Your task to perform on an android device: Clear all items from cart on ebay. Search for bose soundlink on ebay, select the first entry, add it to the cart, then select checkout. Image 0: 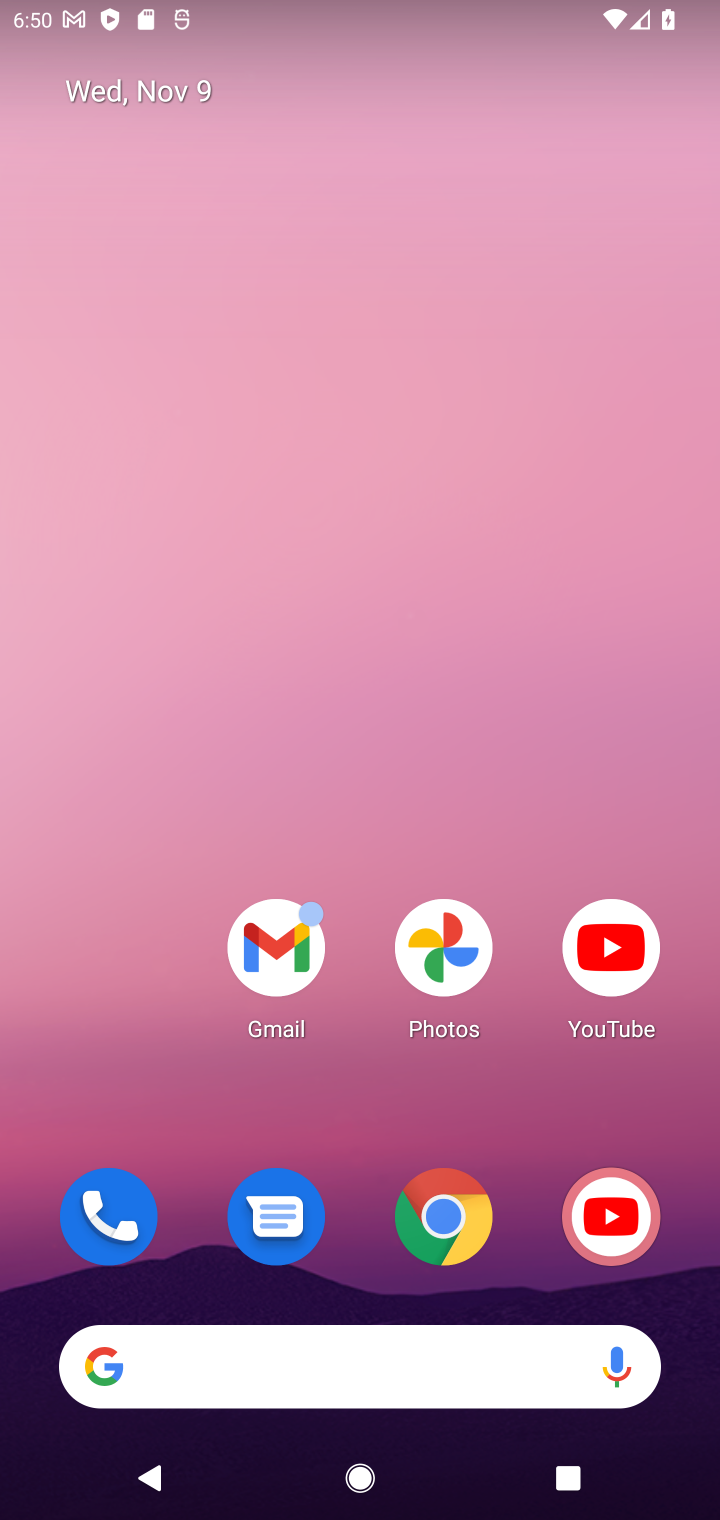
Step 0: drag from (380, 1132) to (413, 166)
Your task to perform on an android device: Clear all items from cart on ebay. Search for bose soundlink on ebay, select the first entry, add it to the cart, then select checkout. Image 1: 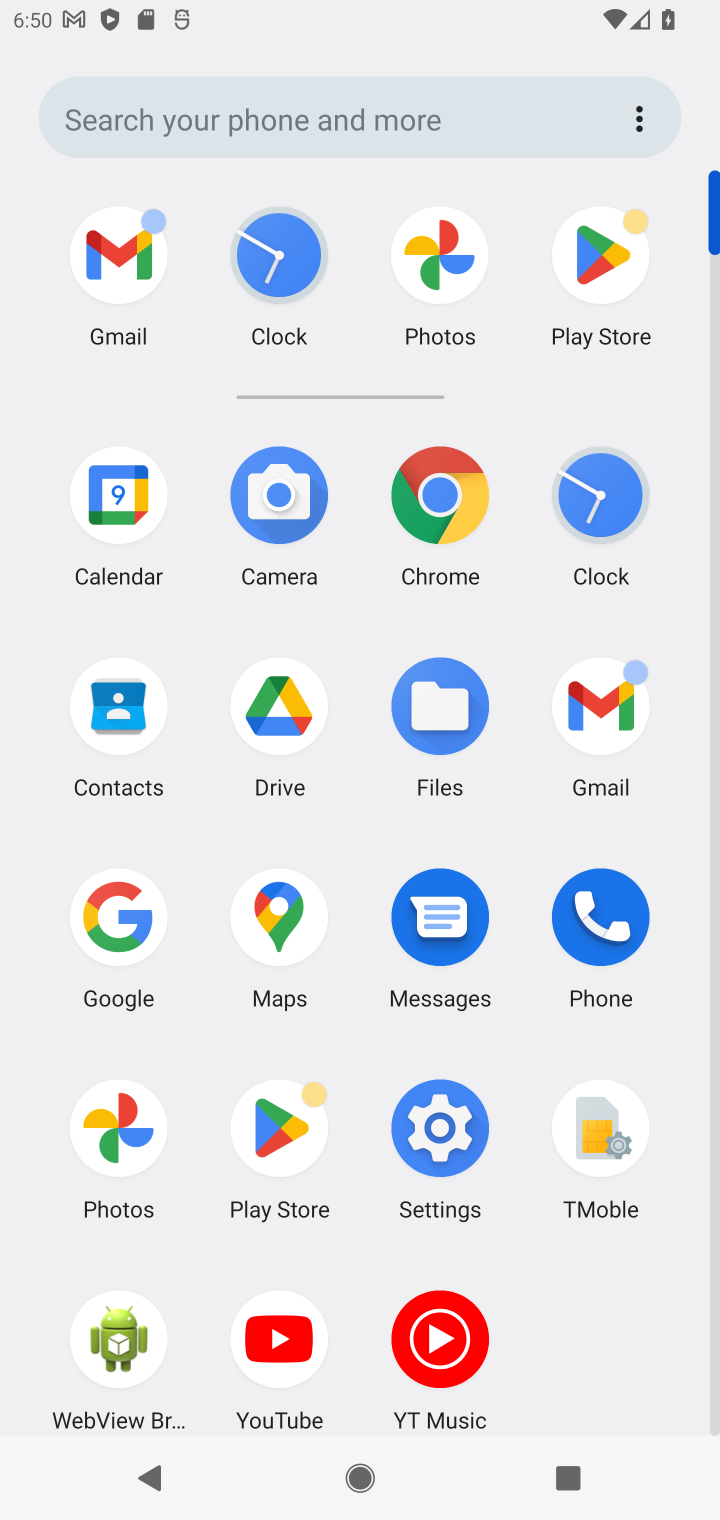
Step 1: click (434, 494)
Your task to perform on an android device: Clear all items from cart on ebay. Search for bose soundlink on ebay, select the first entry, add it to the cart, then select checkout. Image 2: 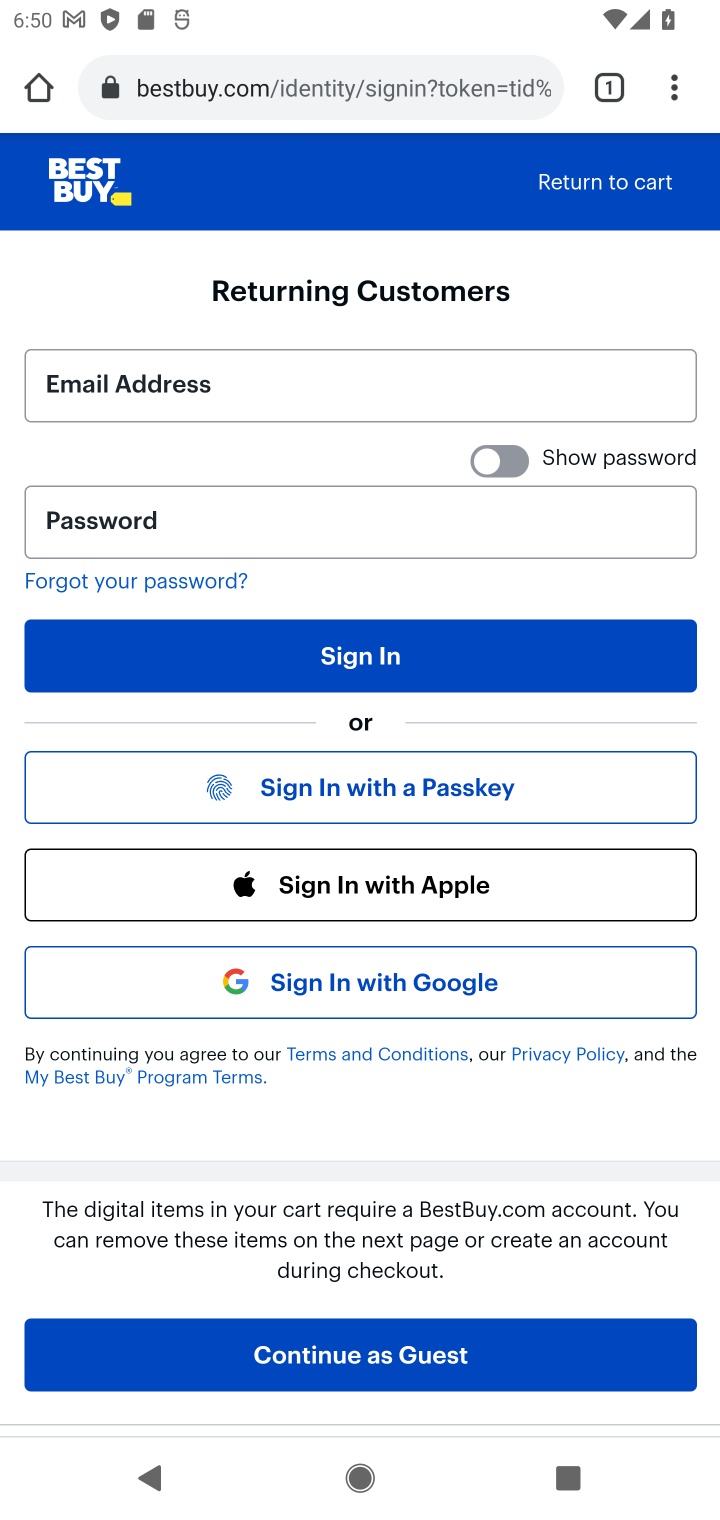
Step 2: click (378, 81)
Your task to perform on an android device: Clear all items from cart on ebay. Search for bose soundlink on ebay, select the first entry, add it to the cart, then select checkout. Image 3: 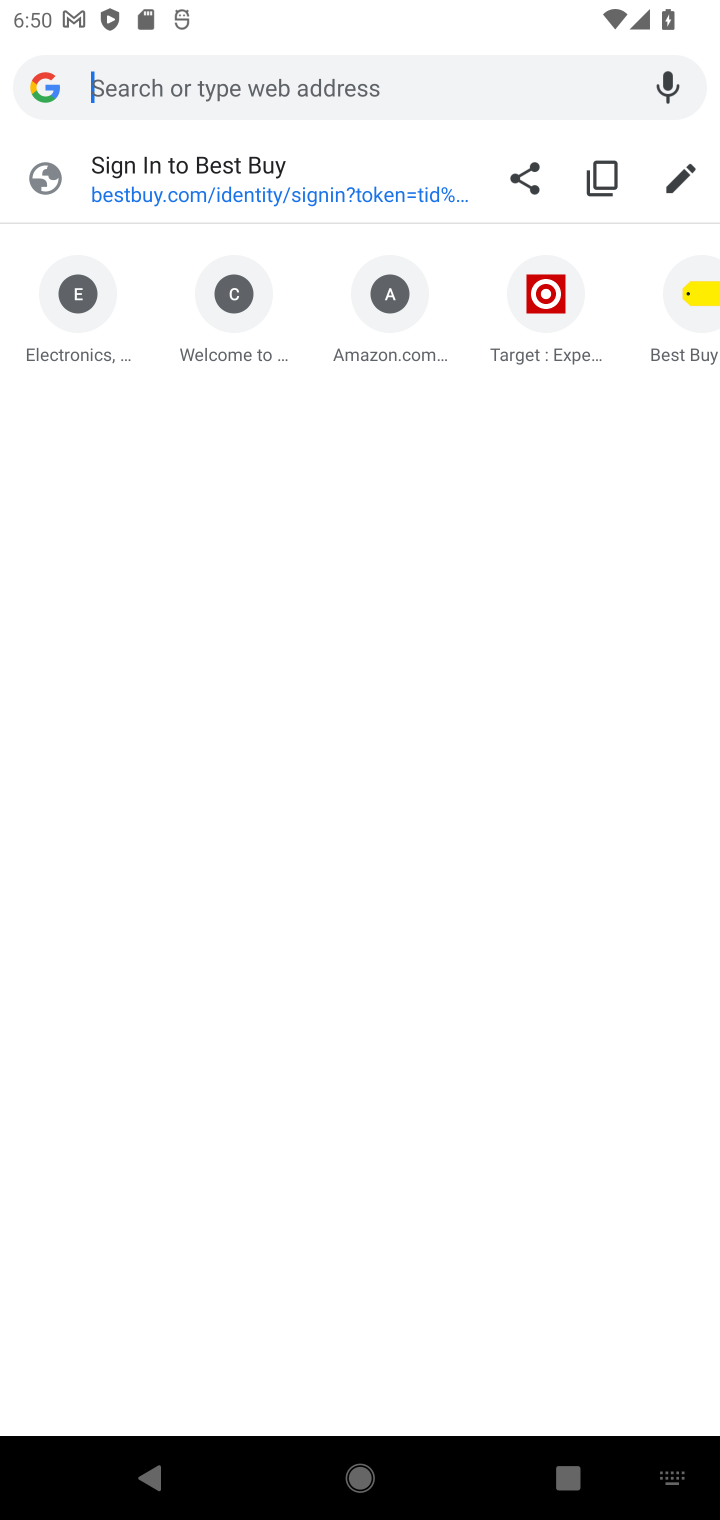
Step 3: press enter
Your task to perform on an android device: Clear all items from cart on ebay. Search for bose soundlink on ebay, select the first entry, add it to the cart, then select checkout. Image 4: 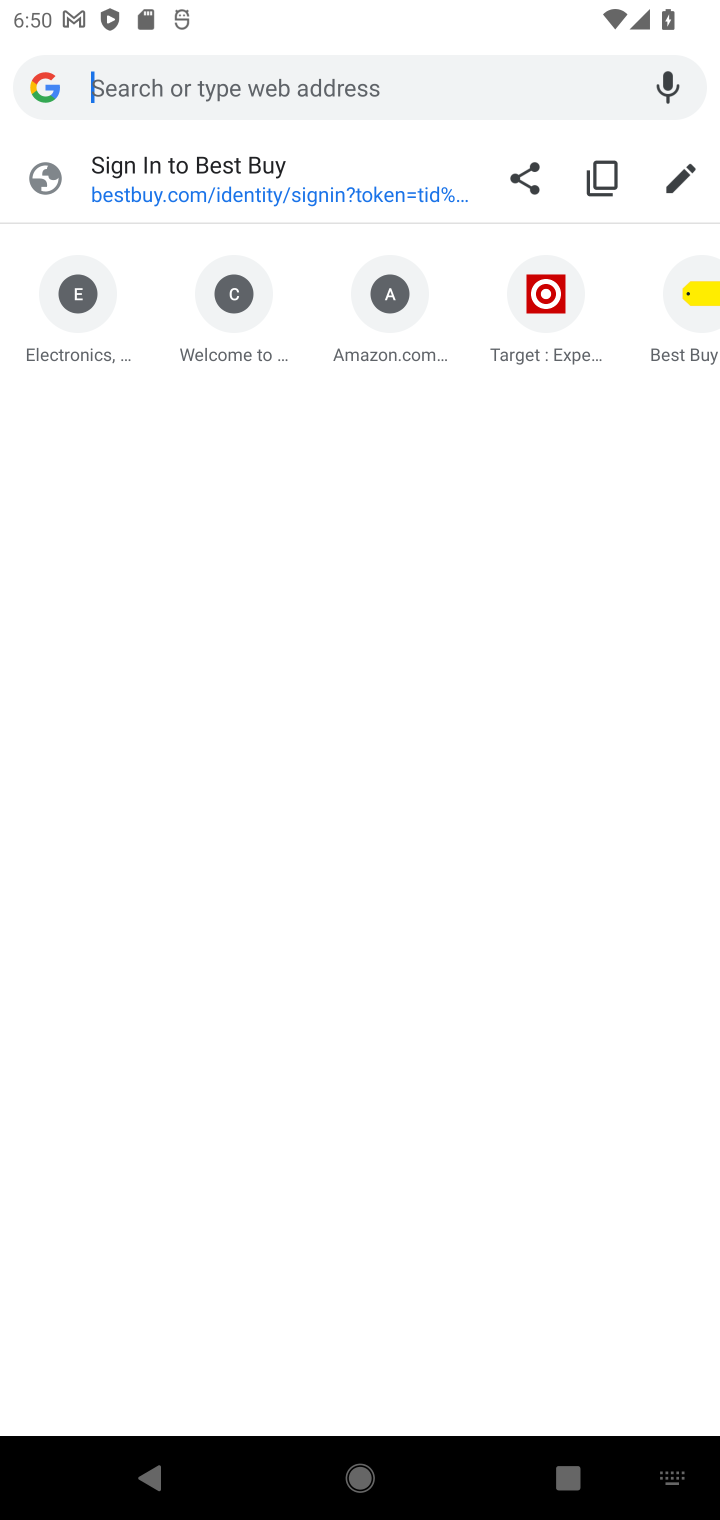
Step 4: type "ebay.com"
Your task to perform on an android device: Clear all items from cart on ebay. Search for bose soundlink on ebay, select the first entry, add it to the cart, then select checkout. Image 5: 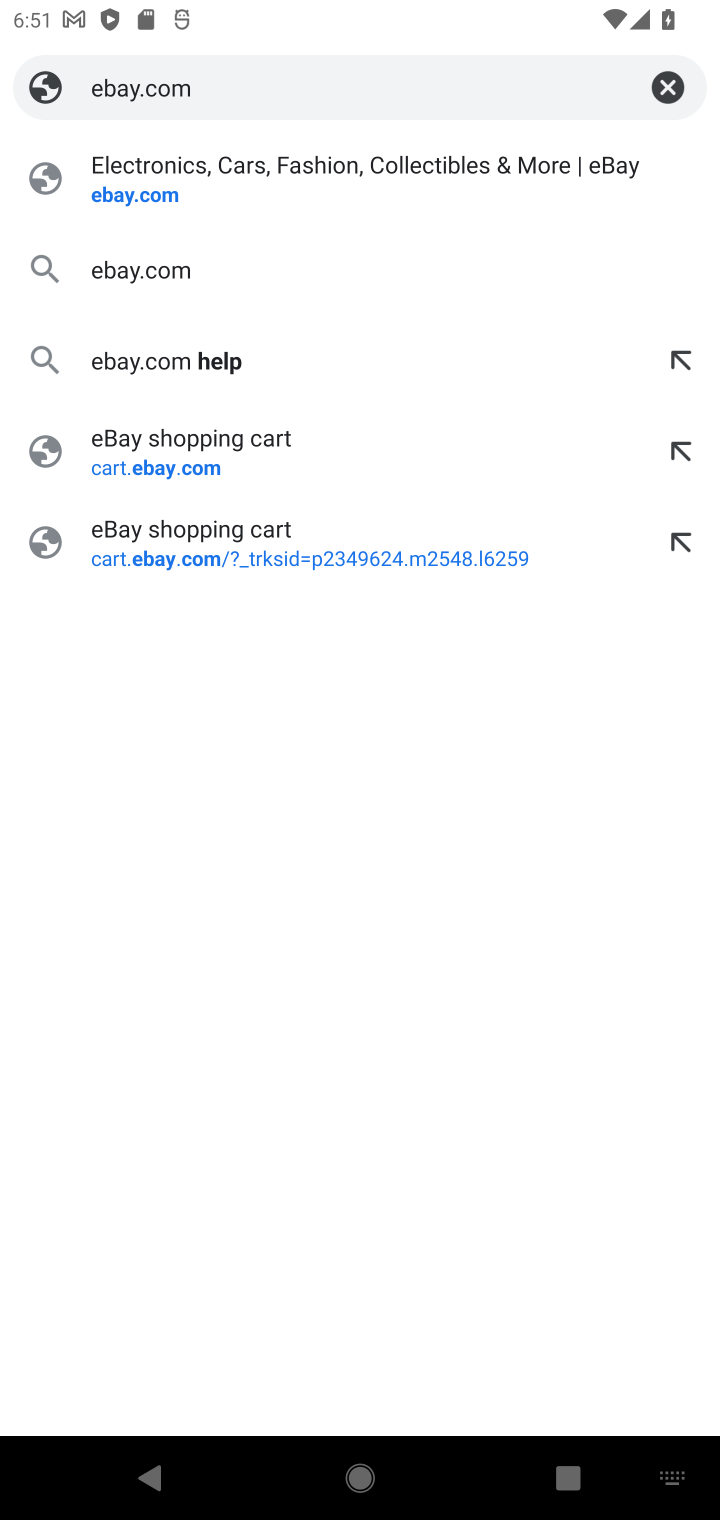
Step 5: press enter
Your task to perform on an android device: Clear all items from cart on ebay. Search for bose soundlink on ebay, select the first entry, add it to the cart, then select checkout. Image 6: 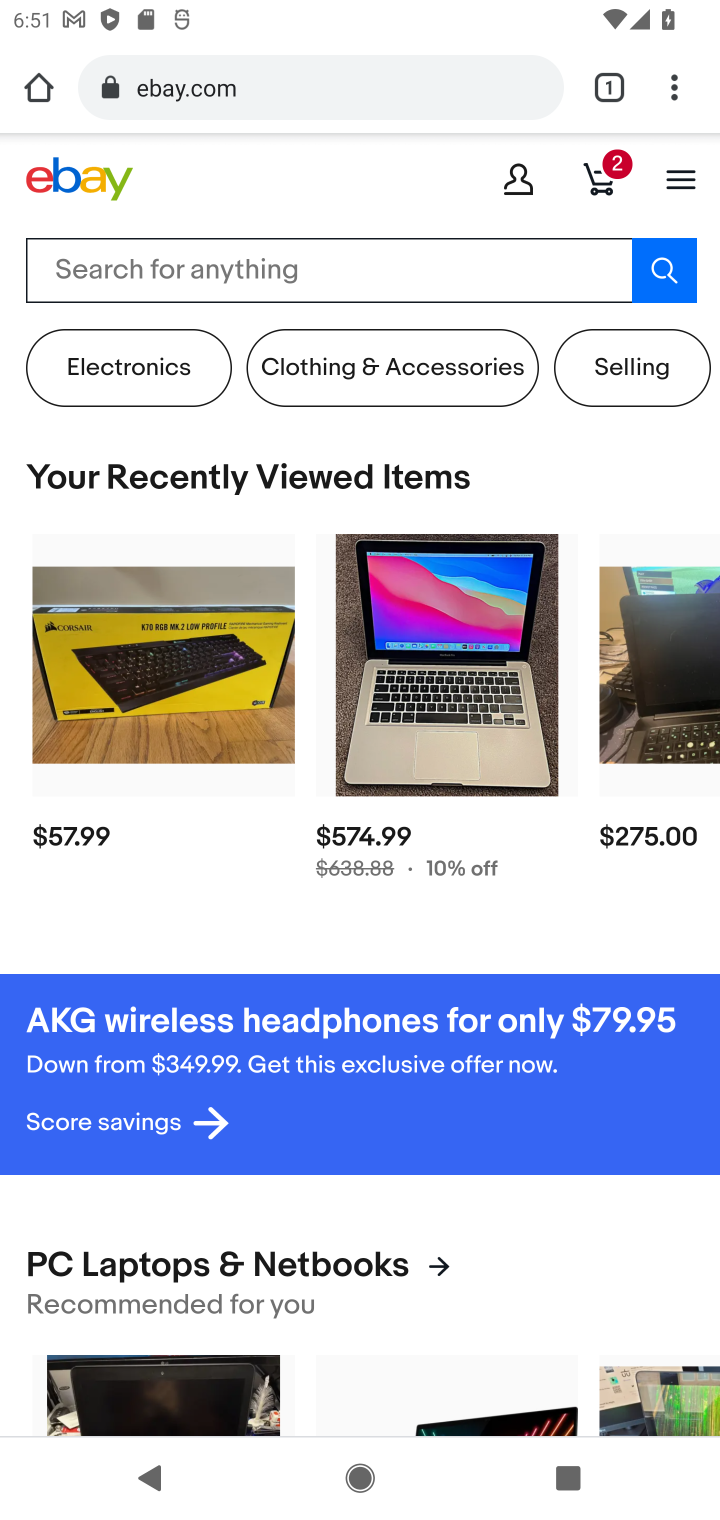
Step 6: click (607, 159)
Your task to perform on an android device: Clear all items from cart on ebay. Search for bose soundlink on ebay, select the first entry, add it to the cart, then select checkout. Image 7: 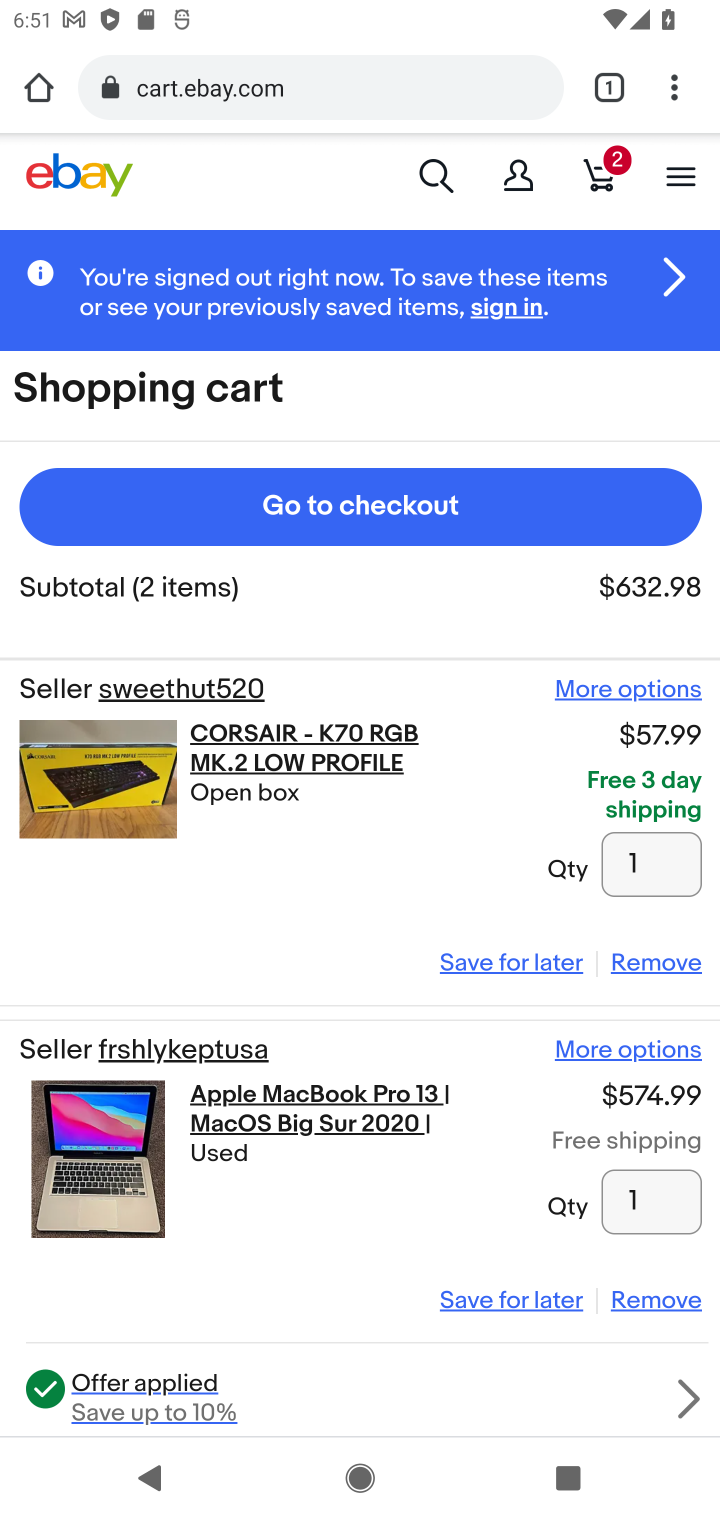
Step 7: click (675, 967)
Your task to perform on an android device: Clear all items from cart on ebay. Search for bose soundlink on ebay, select the first entry, add it to the cart, then select checkout. Image 8: 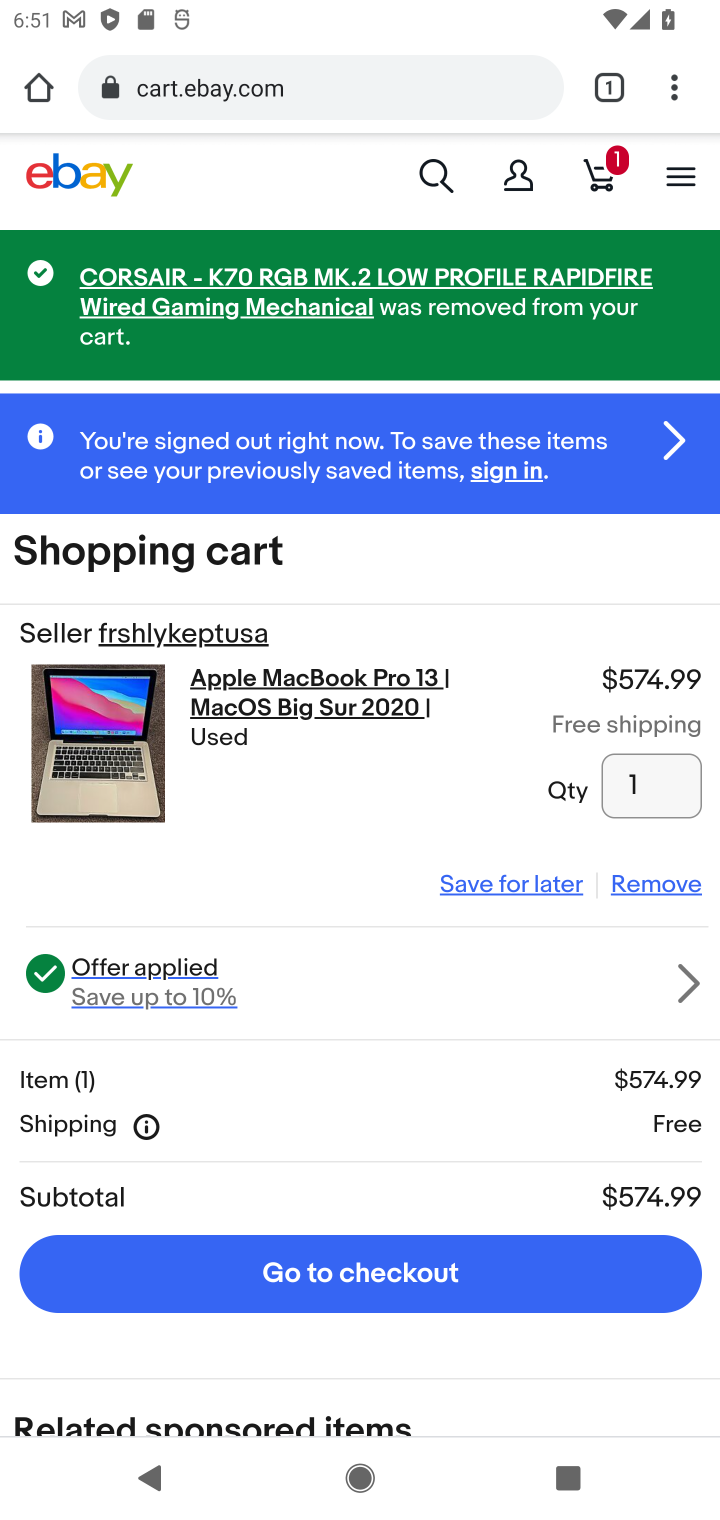
Step 8: click (653, 882)
Your task to perform on an android device: Clear all items from cart on ebay. Search for bose soundlink on ebay, select the first entry, add it to the cart, then select checkout. Image 9: 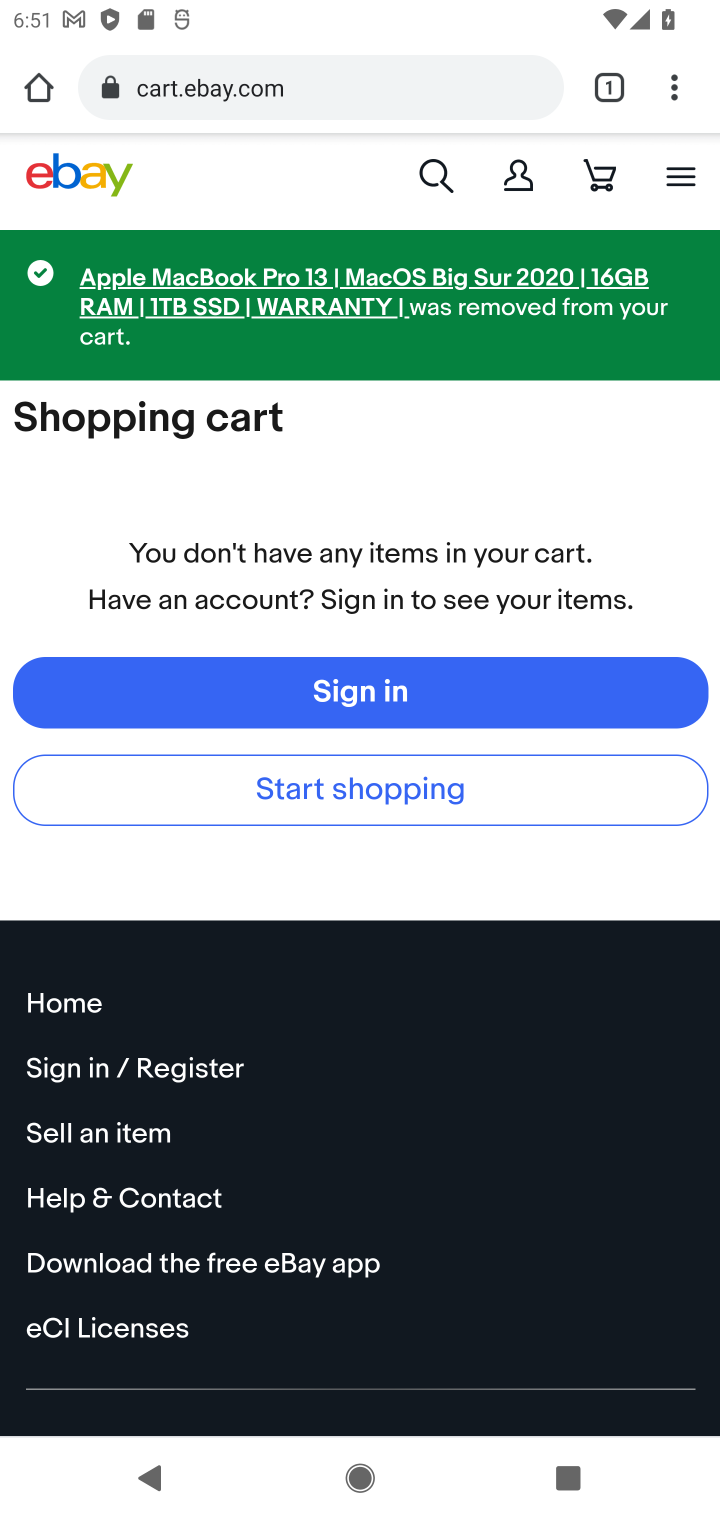
Step 9: click (467, 785)
Your task to perform on an android device: Clear all items from cart on ebay. Search for bose soundlink on ebay, select the first entry, add it to the cart, then select checkout. Image 10: 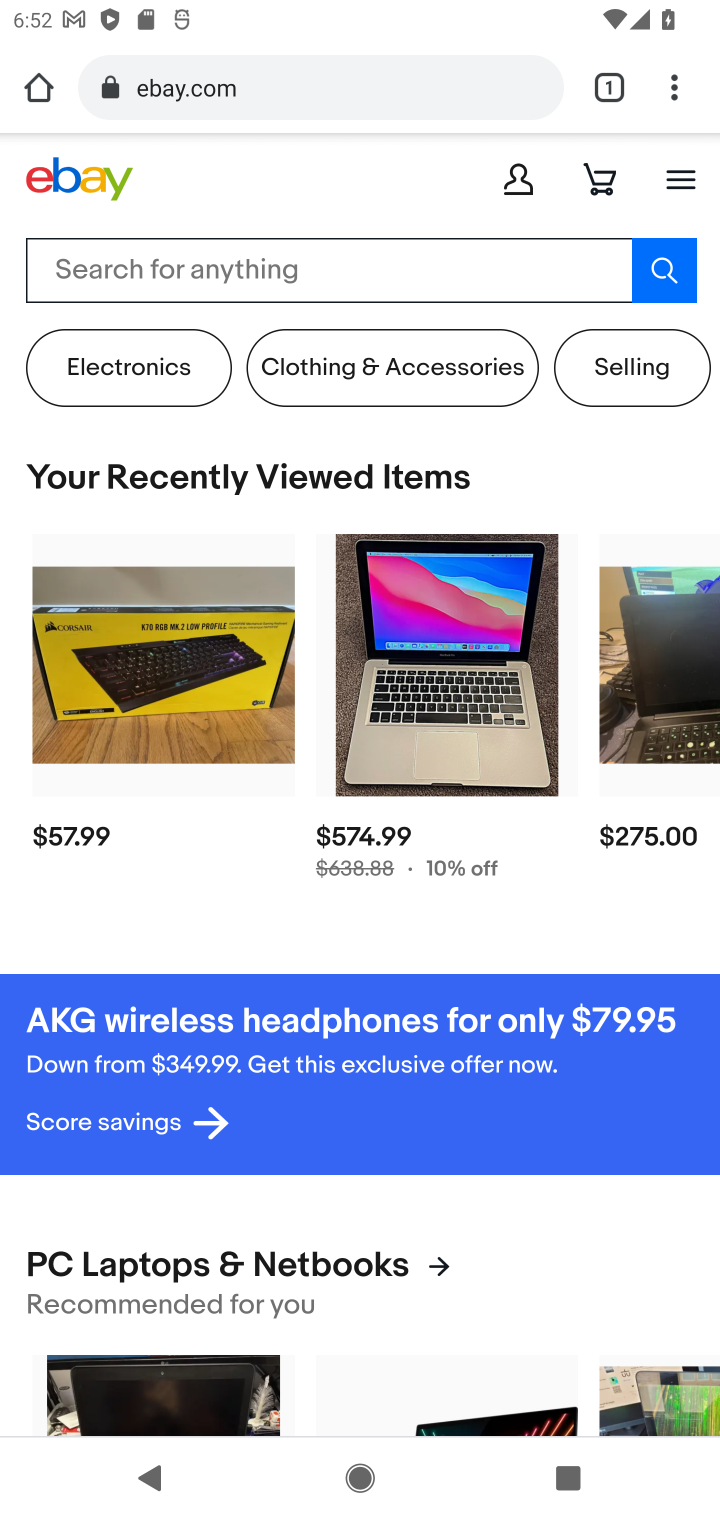
Step 10: click (600, 182)
Your task to perform on an android device: Clear all items from cart on ebay. Search for bose soundlink on ebay, select the first entry, add it to the cart, then select checkout. Image 11: 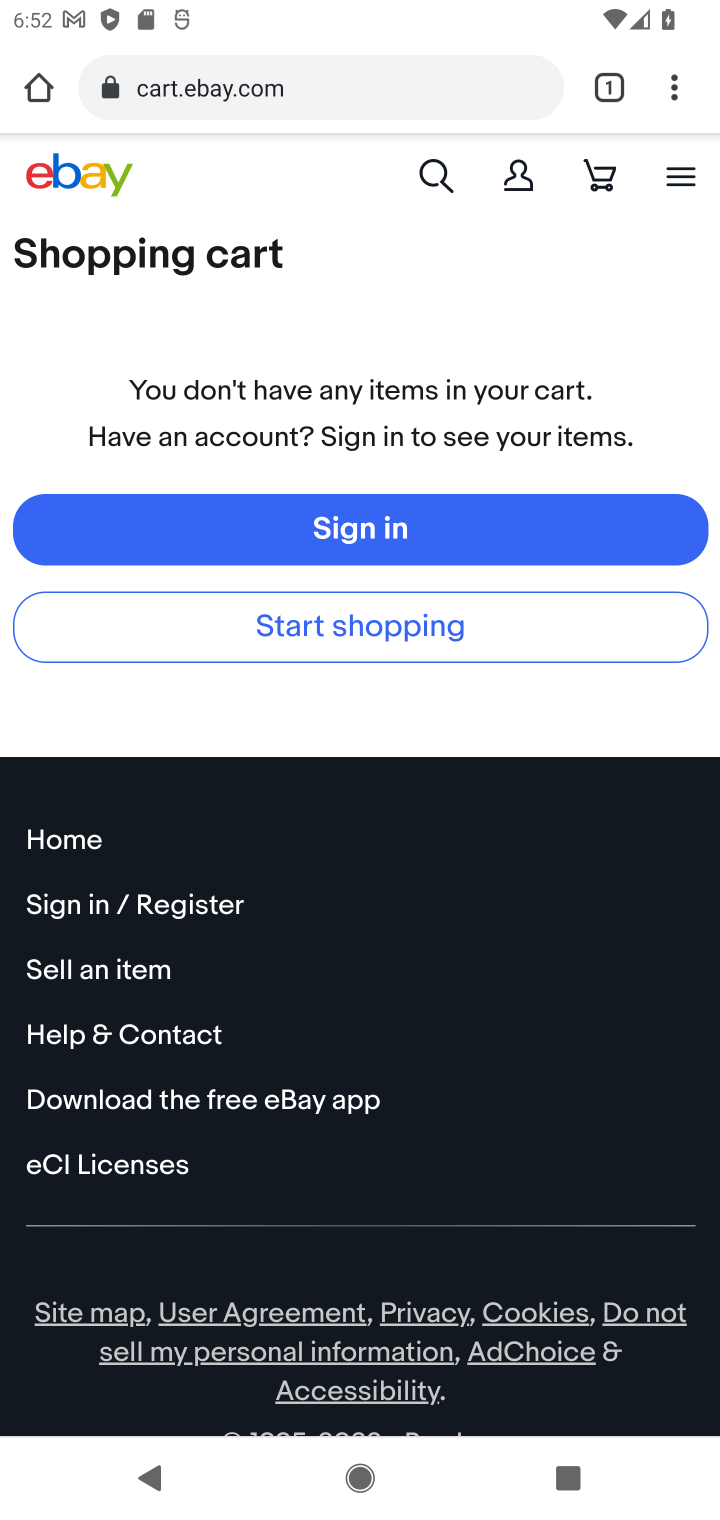
Step 11: click (447, 616)
Your task to perform on an android device: Clear all items from cart on ebay. Search for bose soundlink on ebay, select the first entry, add it to the cart, then select checkout. Image 12: 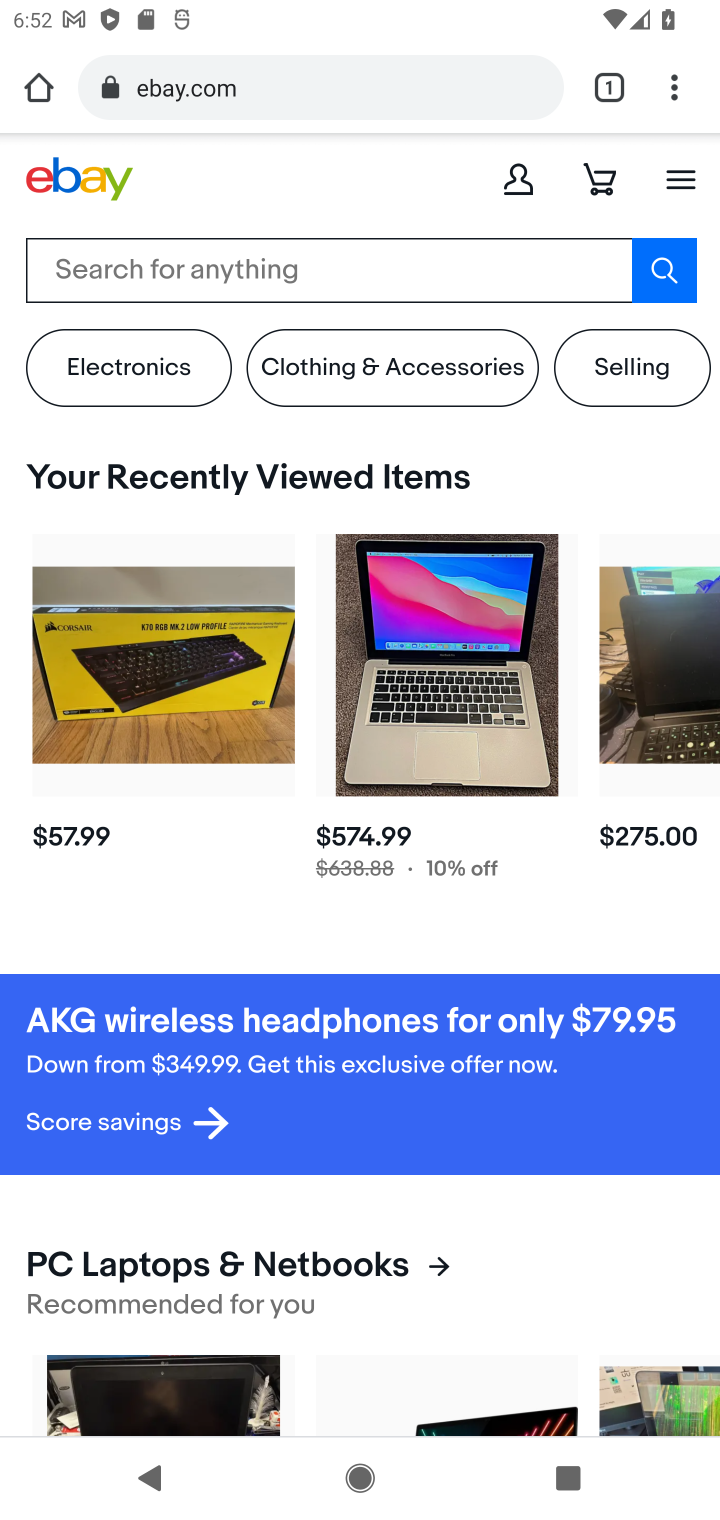
Step 12: click (351, 264)
Your task to perform on an android device: Clear all items from cart on ebay. Search for bose soundlink on ebay, select the first entry, add it to the cart, then select checkout. Image 13: 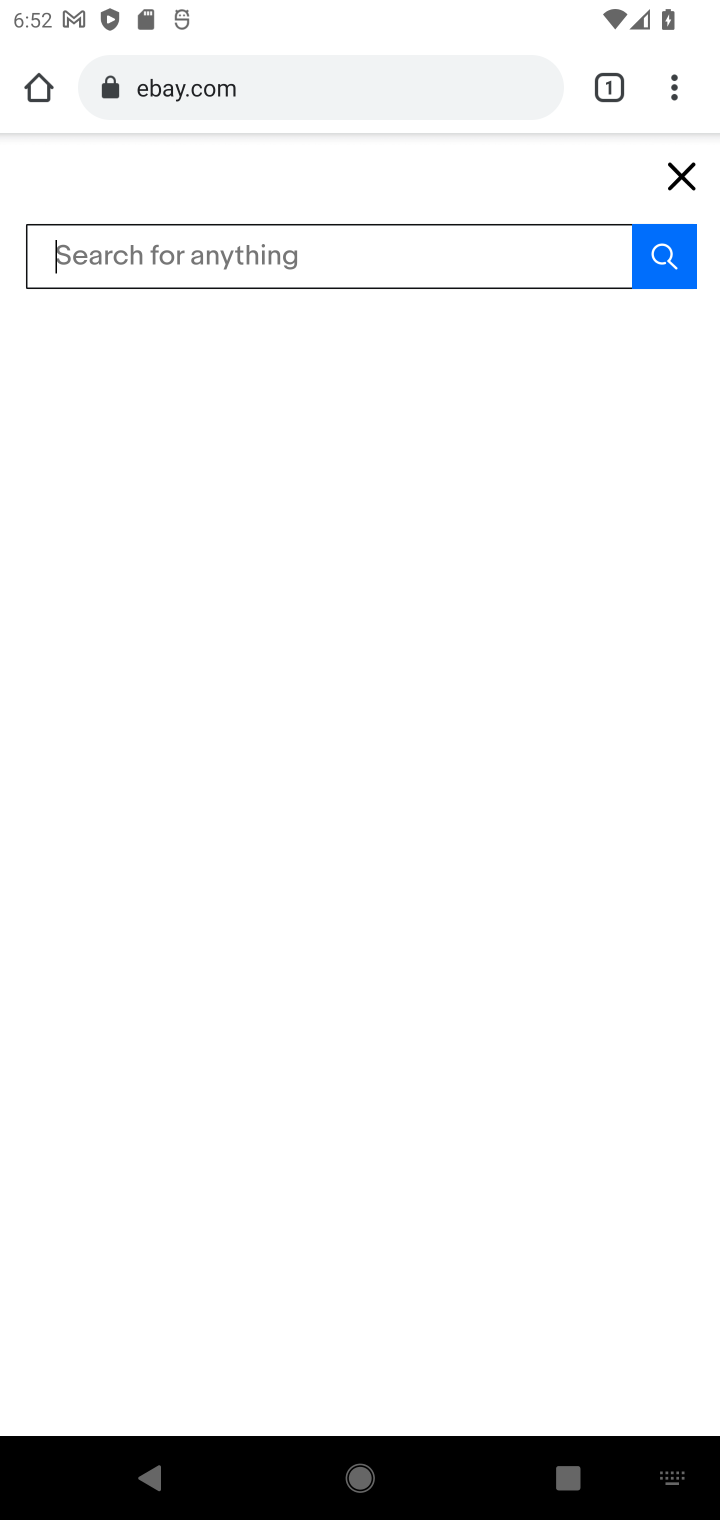
Step 13: type "bose soundlink"
Your task to perform on an android device: Clear all items from cart on ebay. Search for bose soundlink on ebay, select the first entry, add it to the cart, then select checkout. Image 14: 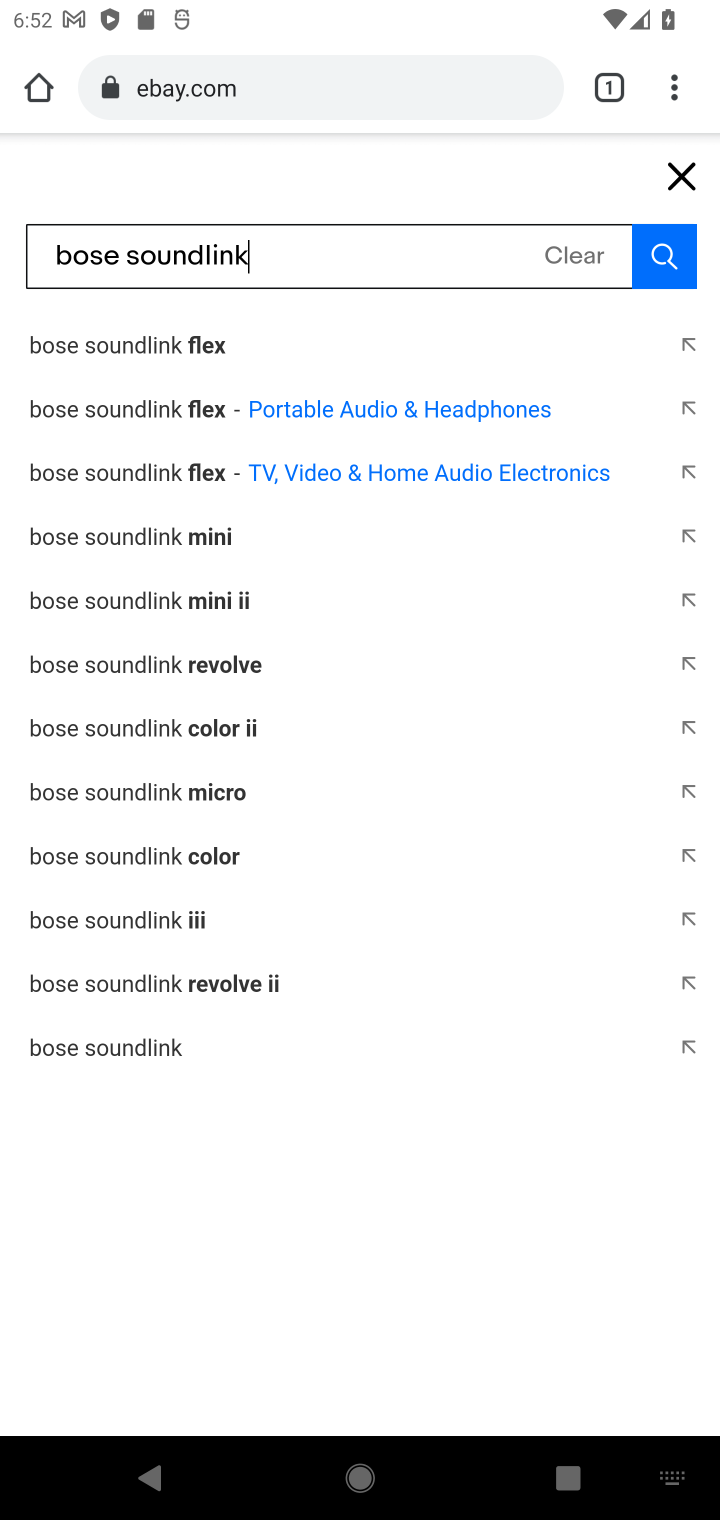
Step 14: press enter
Your task to perform on an android device: Clear all items from cart on ebay. Search for bose soundlink on ebay, select the first entry, add it to the cart, then select checkout. Image 15: 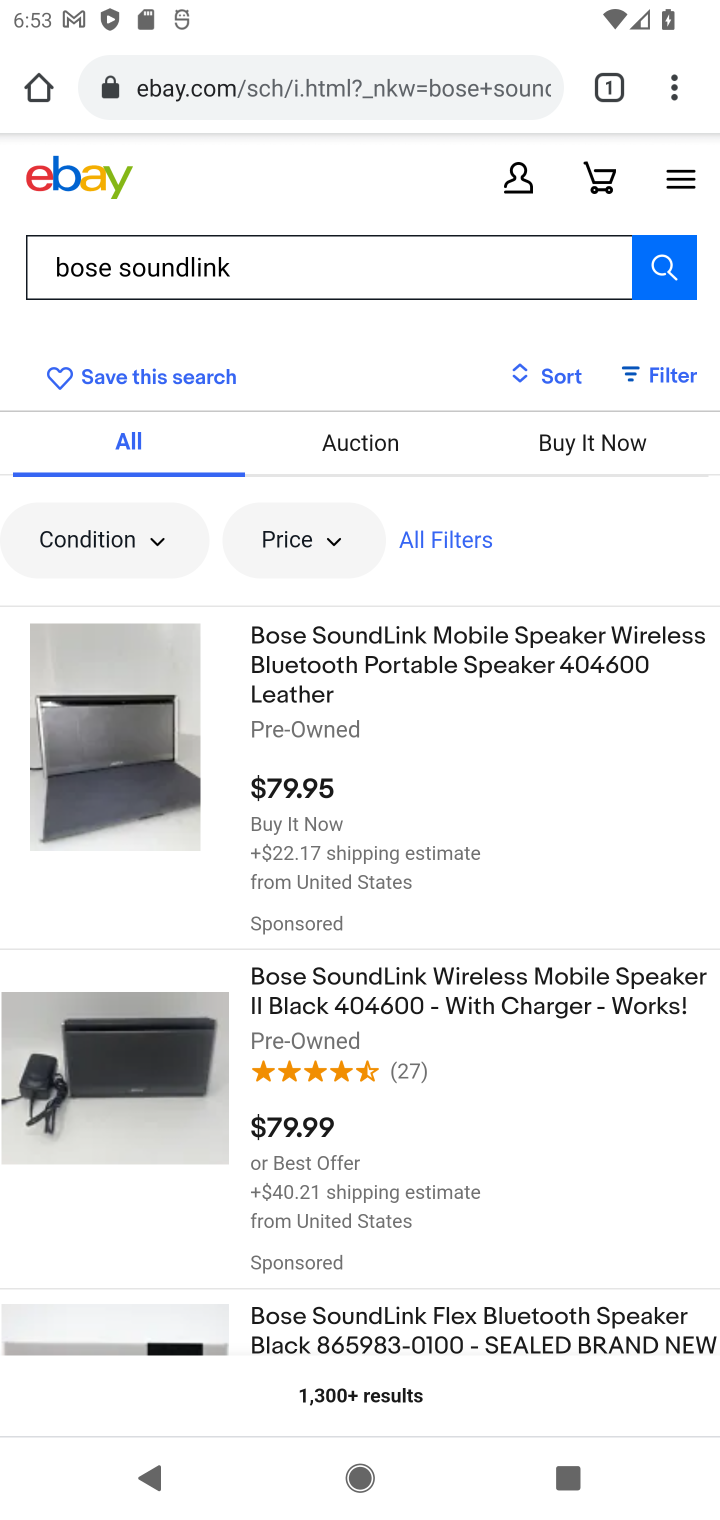
Step 15: click (147, 734)
Your task to perform on an android device: Clear all items from cart on ebay. Search for bose soundlink on ebay, select the first entry, add it to the cart, then select checkout. Image 16: 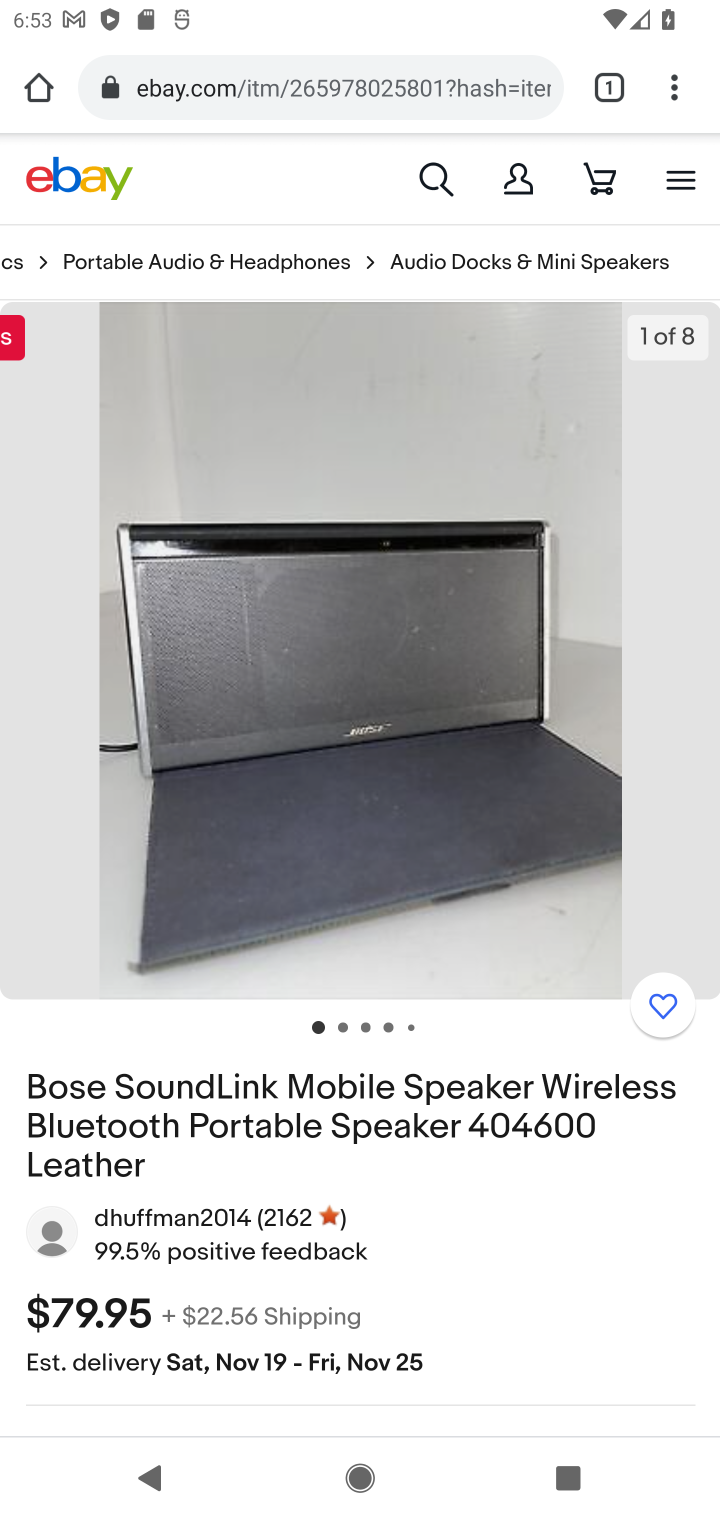
Step 16: drag from (438, 957) to (440, 115)
Your task to perform on an android device: Clear all items from cart on ebay. Search for bose soundlink on ebay, select the first entry, add it to the cart, then select checkout. Image 17: 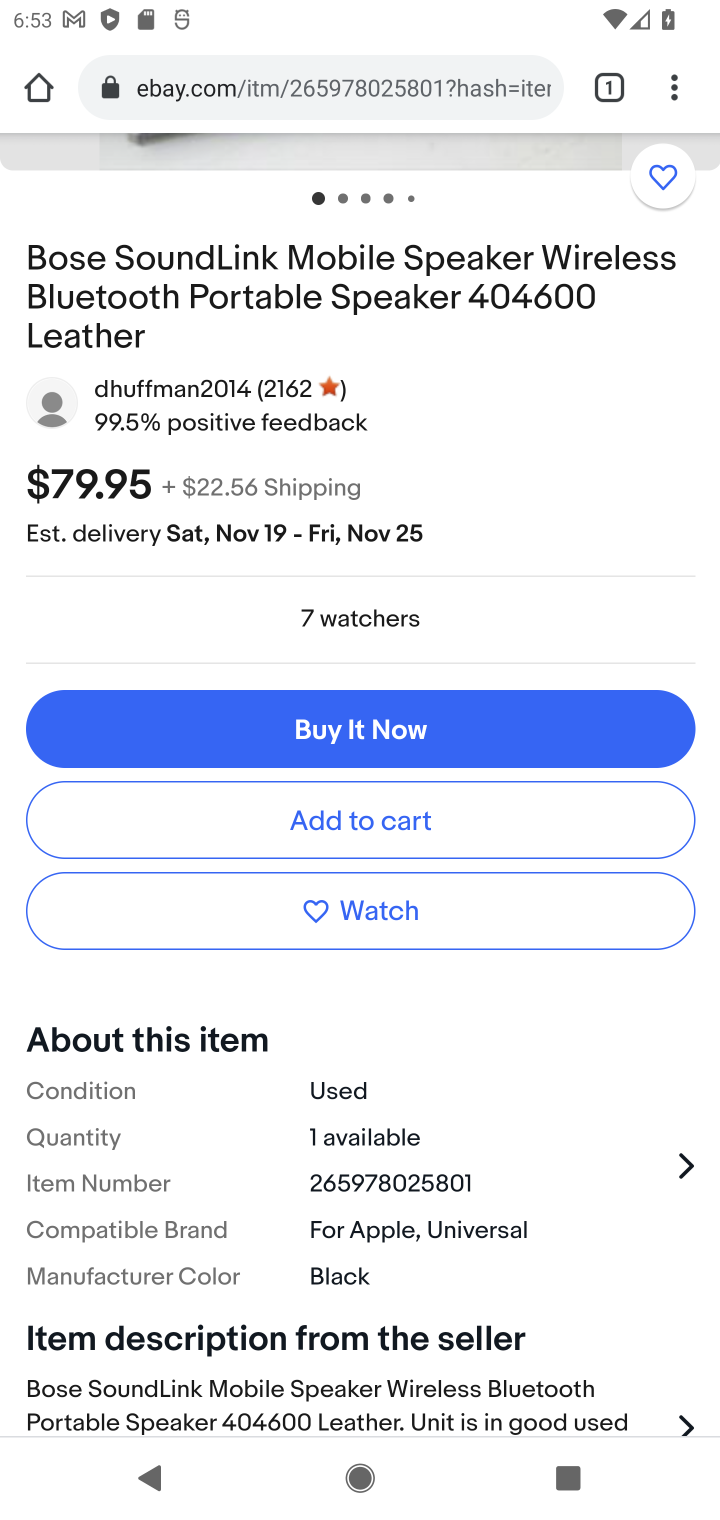
Step 17: click (494, 834)
Your task to perform on an android device: Clear all items from cart on ebay. Search for bose soundlink on ebay, select the first entry, add it to the cart, then select checkout. Image 18: 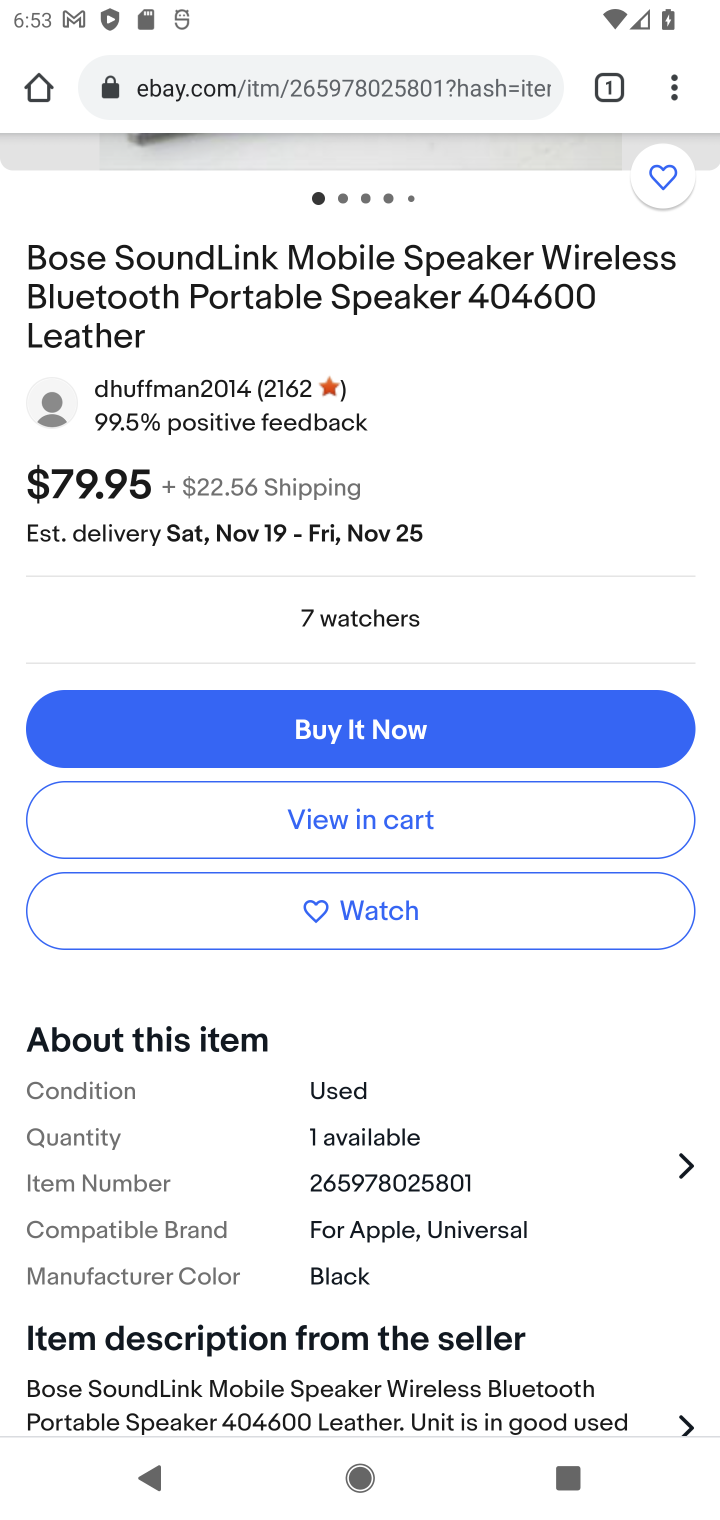
Step 18: click (558, 834)
Your task to perform on an android device: Clear all items from cart on ebay. Search for bose soundlink on ebay, select the first entry, add it to the cart, then select checkout. Image 19: 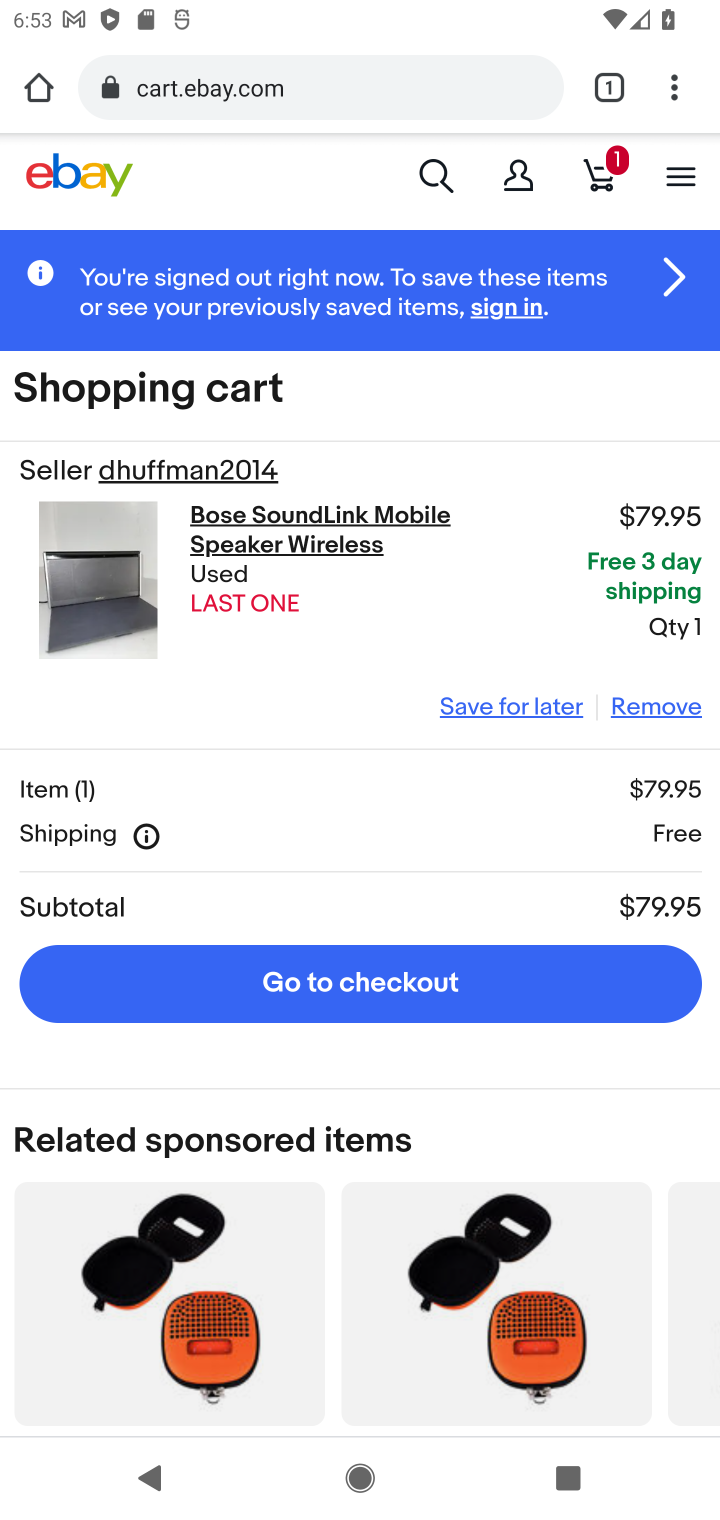
Step 19: click (459, 990)
Your task to perform on an android device: Clear all items from cart on ebay. Search for bose soundlink on ebay, select the first entry, add it to the cart, then select checkout. Image 20: 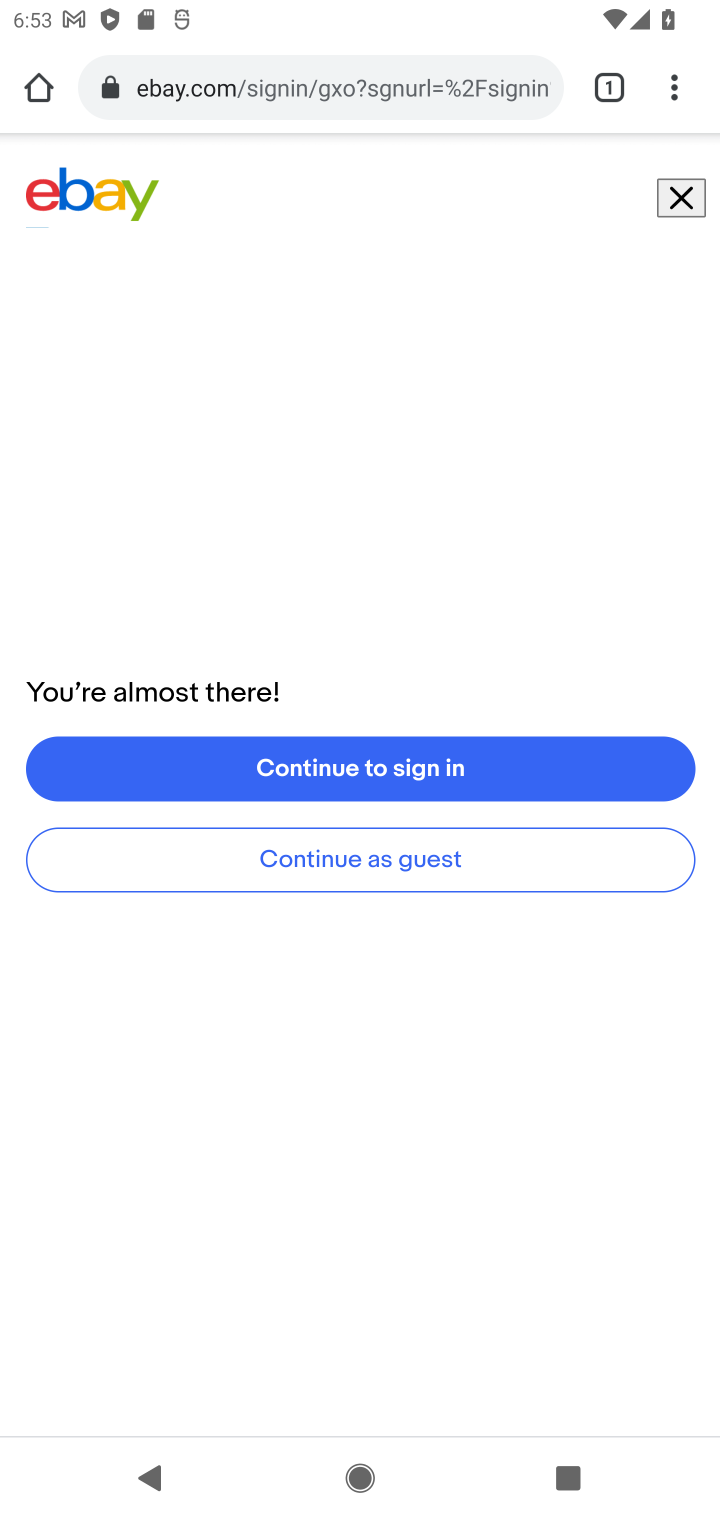
Step 20: task complete